Your task to perform on an android device: What's on my calendar today? Image 0: 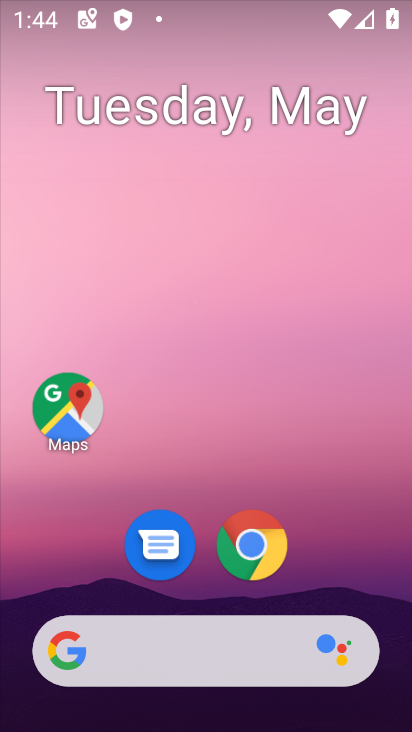
Step 0: drag from (388, 613) to (280, 82)
Your task to perform on an android device: What's on my calendar today? Image 1: 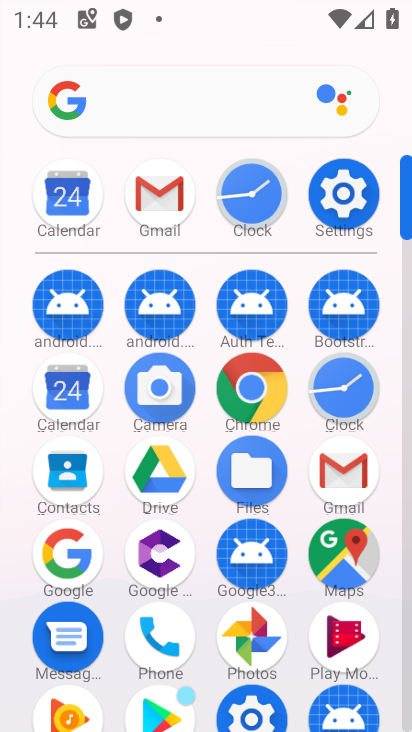
Step 1: click (408, 669)
Your task to perform on an android device: What's on my calendar today? Image 2: 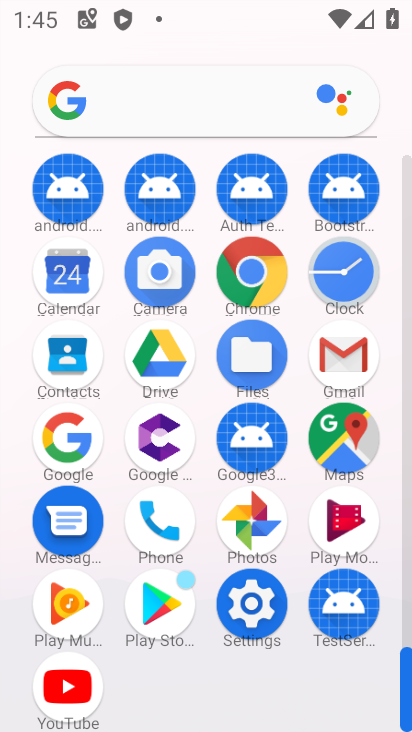
Step 2: click (66, 271)
Your task to perform on an android device: What's on my calendar today? Image 3: 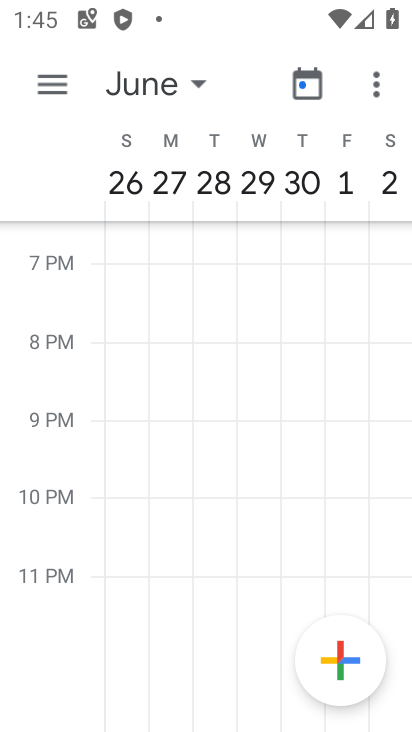
Step 3: click (49, 78)
Your task to perform on an android device: What's on my calendar today? Image 4: 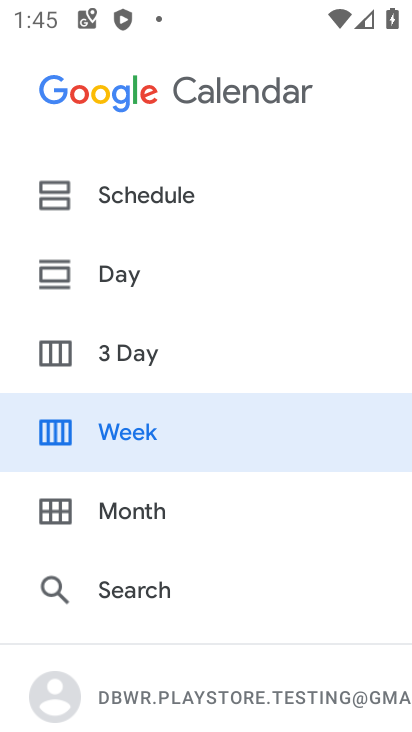
Step 4: click (123, 269)
Your task to perform on an android device: What's on my calendar today? Image 5: 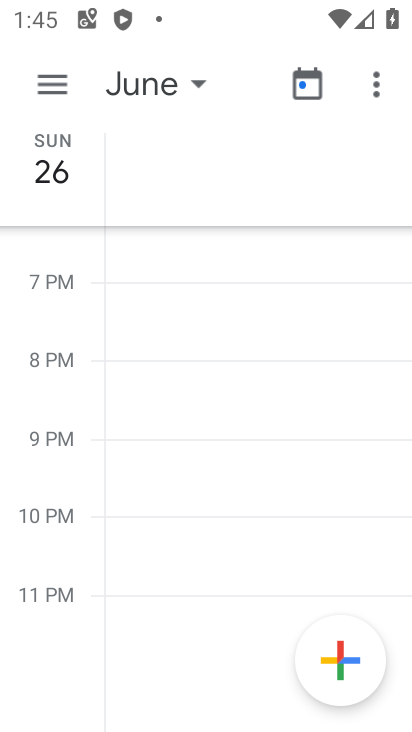
Step 5: click (183, 82)
Your task to perform on an android device: What's on my calendar today? Image 6: 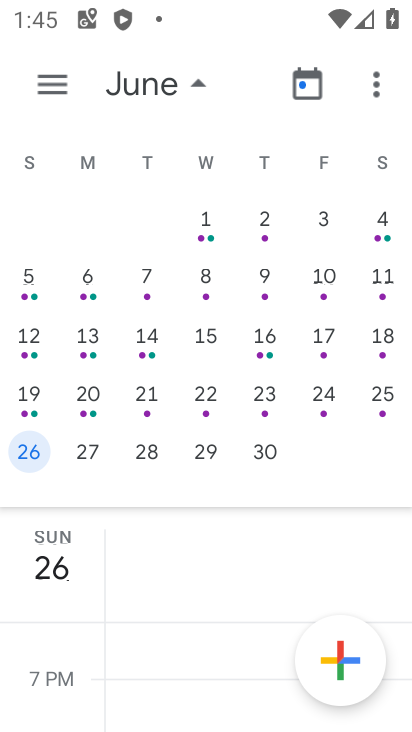
Step 6: drag from (37, 334) to (392, 311)
Your task to perform on an android device: What's on my calendar today? Image 7: 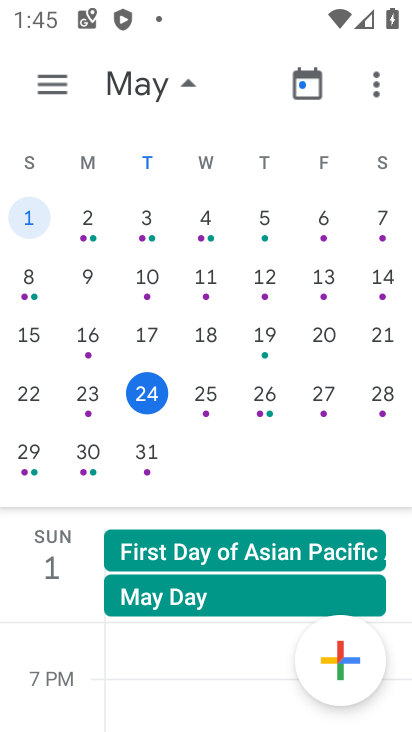
Step 7: click (140, 405)
Your task to perform on an android device: What's on my calendar today? Image 8: 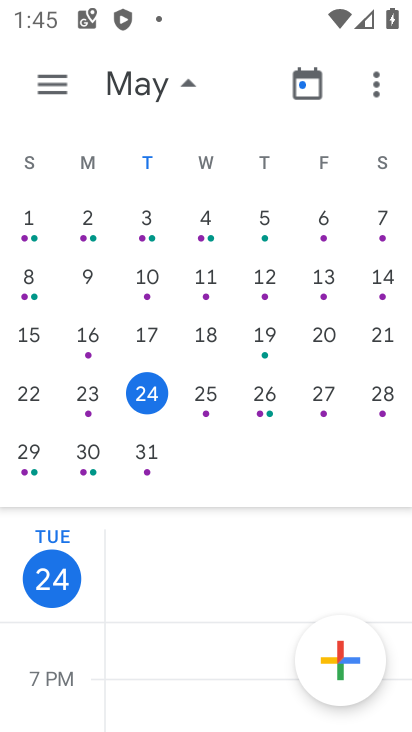
Step 8: task complete